Your task to perform on an android device: Open Google Chrome and open the bookmarks view Image 0: 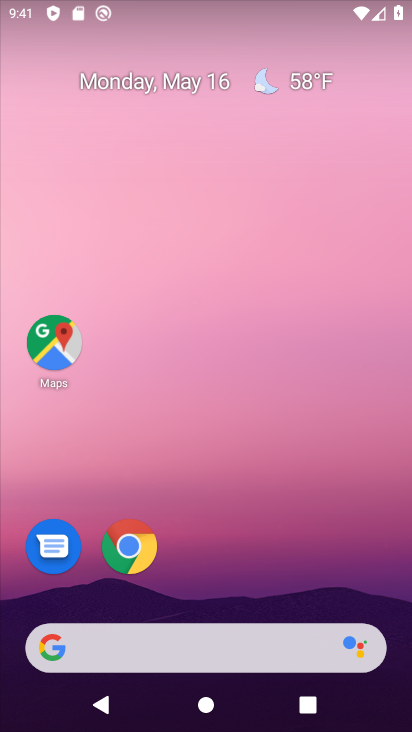
Step 0: click (129, 548)
Your task to perform on an android device: Open Google Chrome and open the bookmarks view Image 1: 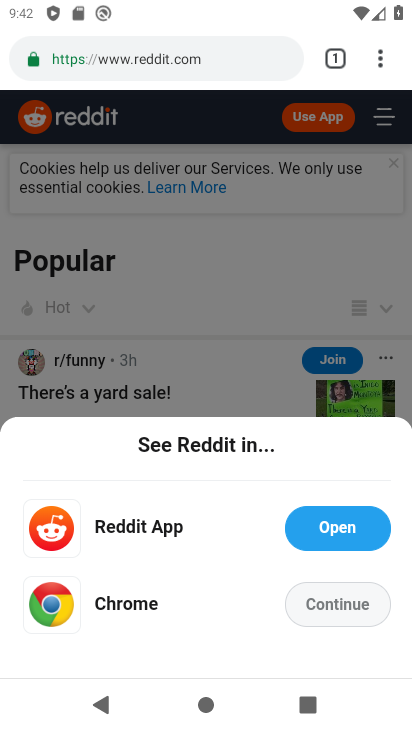
Step 1: click (381, 58)
Your task to perform on an android device: Open Google Chrome and open the bookmarks view Image 2: 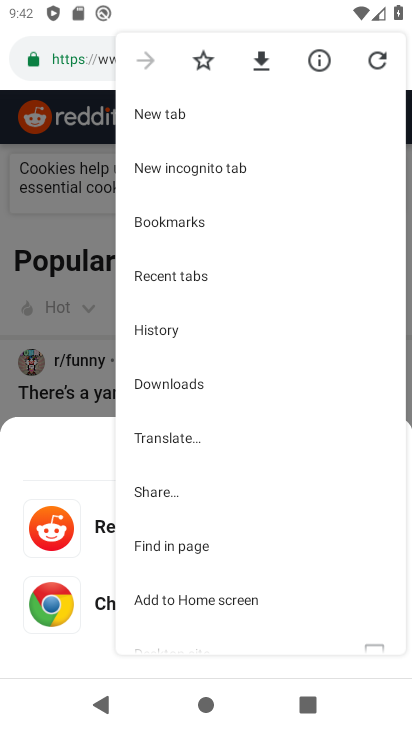
Step 2: click (179, 215)
Your task to perform on an android device: Open Google Chrome and open the bookmarks view Image 3: 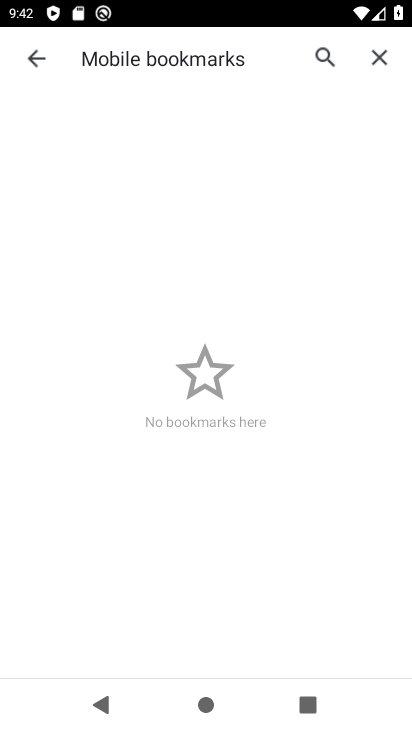
Step 3: task complete